Your task to perform on an android device: uninstall "Google Play services" Image 0: 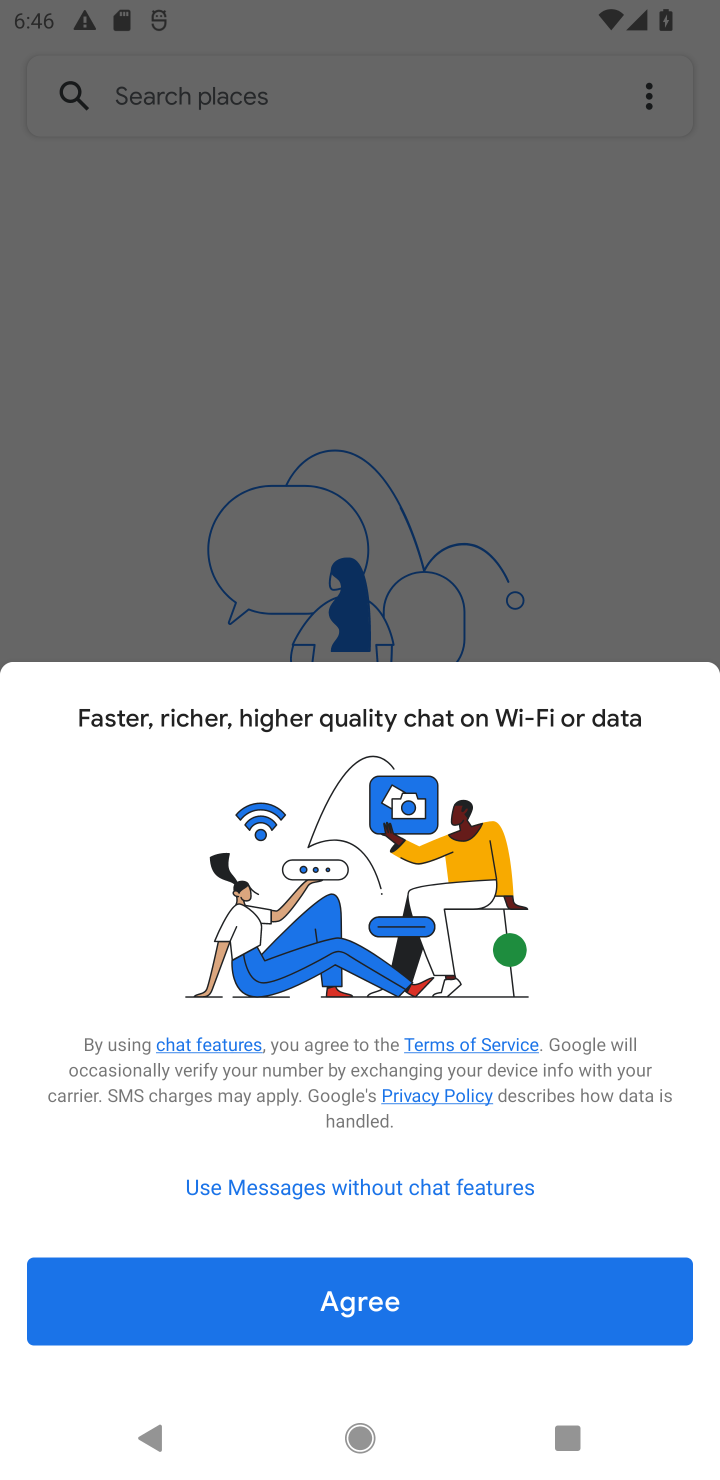
Step 0: press back button
Your task to perform on an android device: uninstall "Google Play services" Image 1: 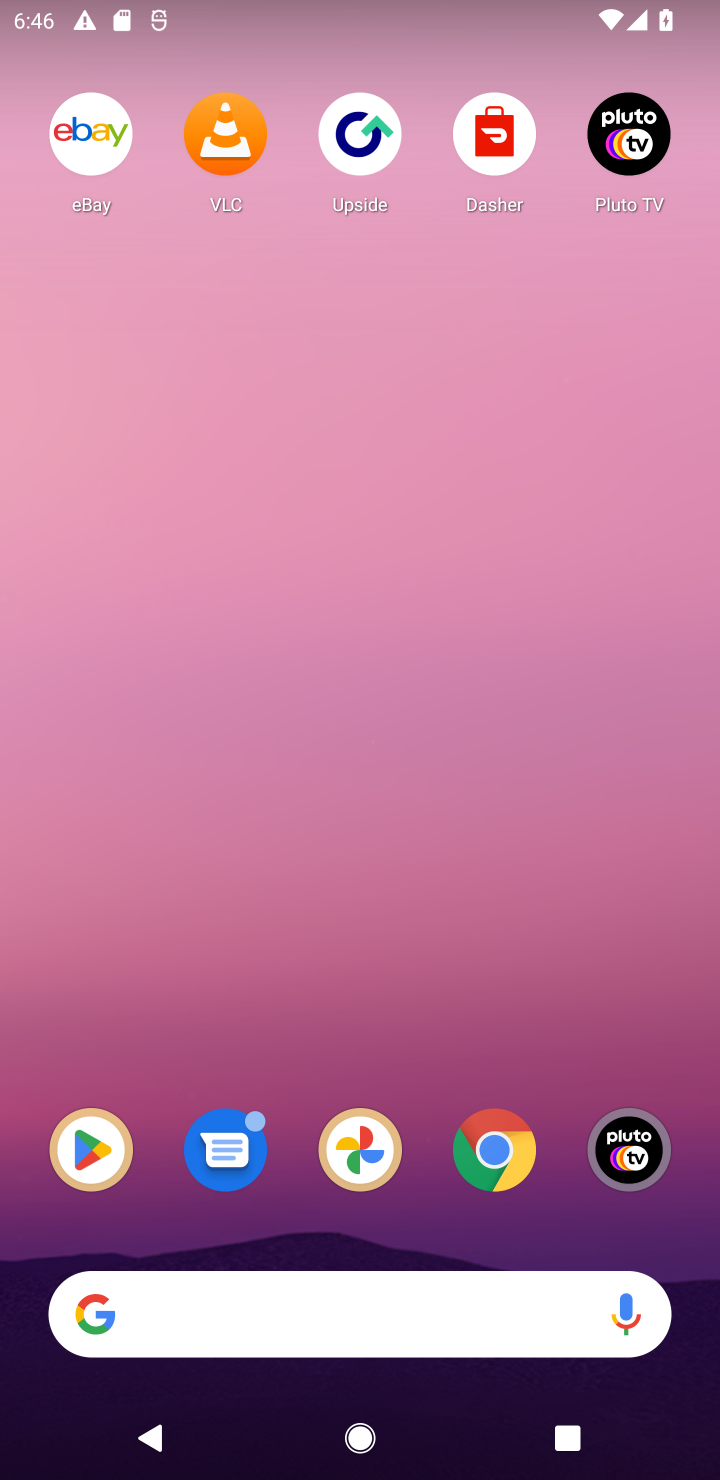
Step 1: press back button
Your task to perform on an android device: uninstall "Google Play services" Image 2: 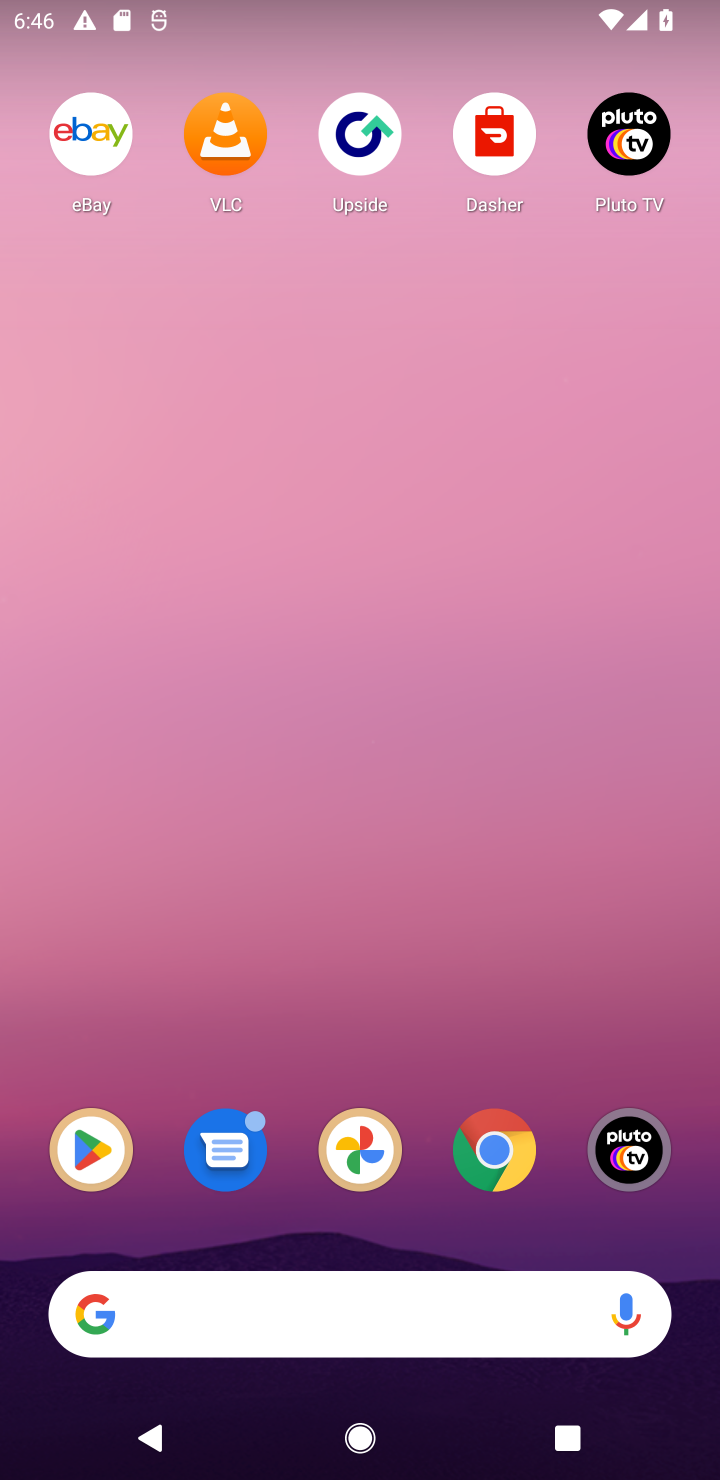
Step 2: click (73, 1159)
Your task to perform on an android device: uninstall "Google Play services" Image 3: 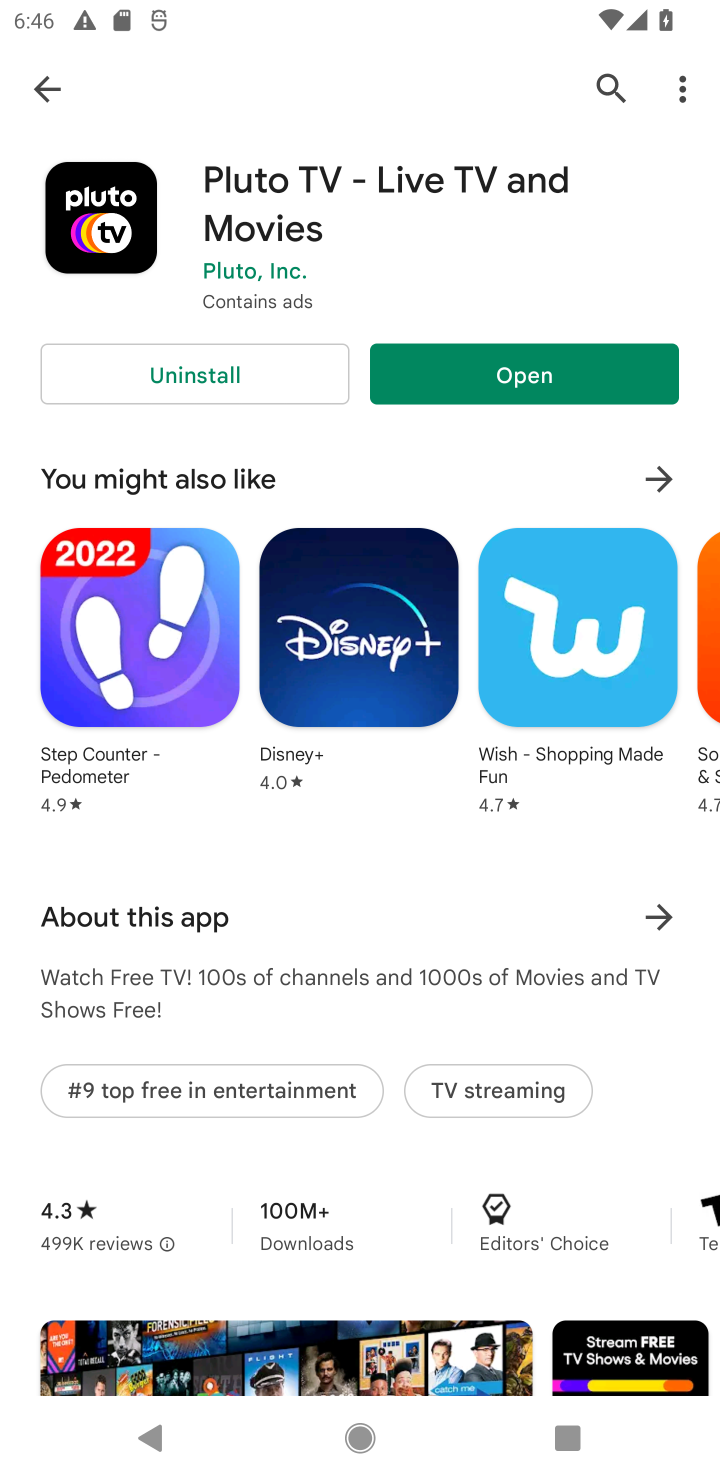
Step 3: click (45, 91)
Your task to perform on an android device: uninstall "Google Play services" Image 4: 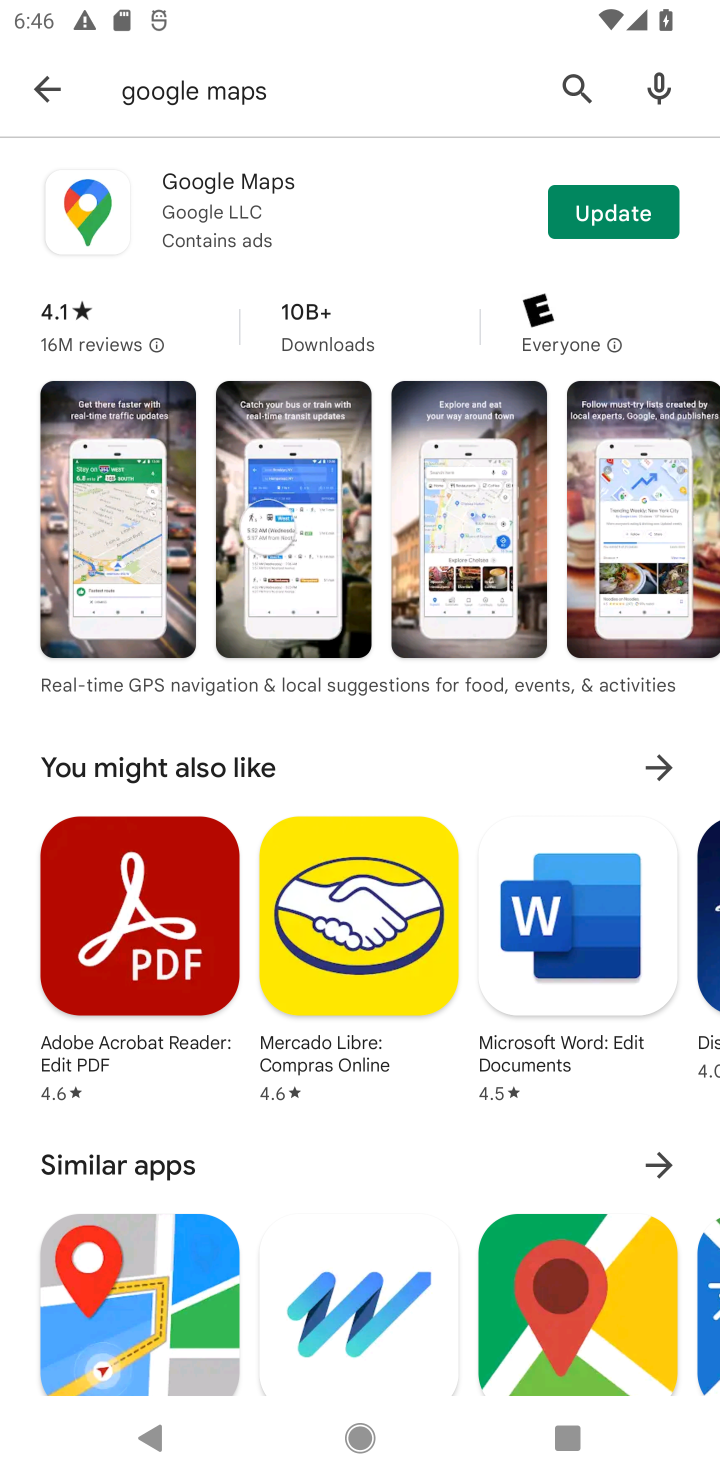
Step 4: click (52, 89)
Your task to perform on an android device: uninstall "Google Play services" Image 5: 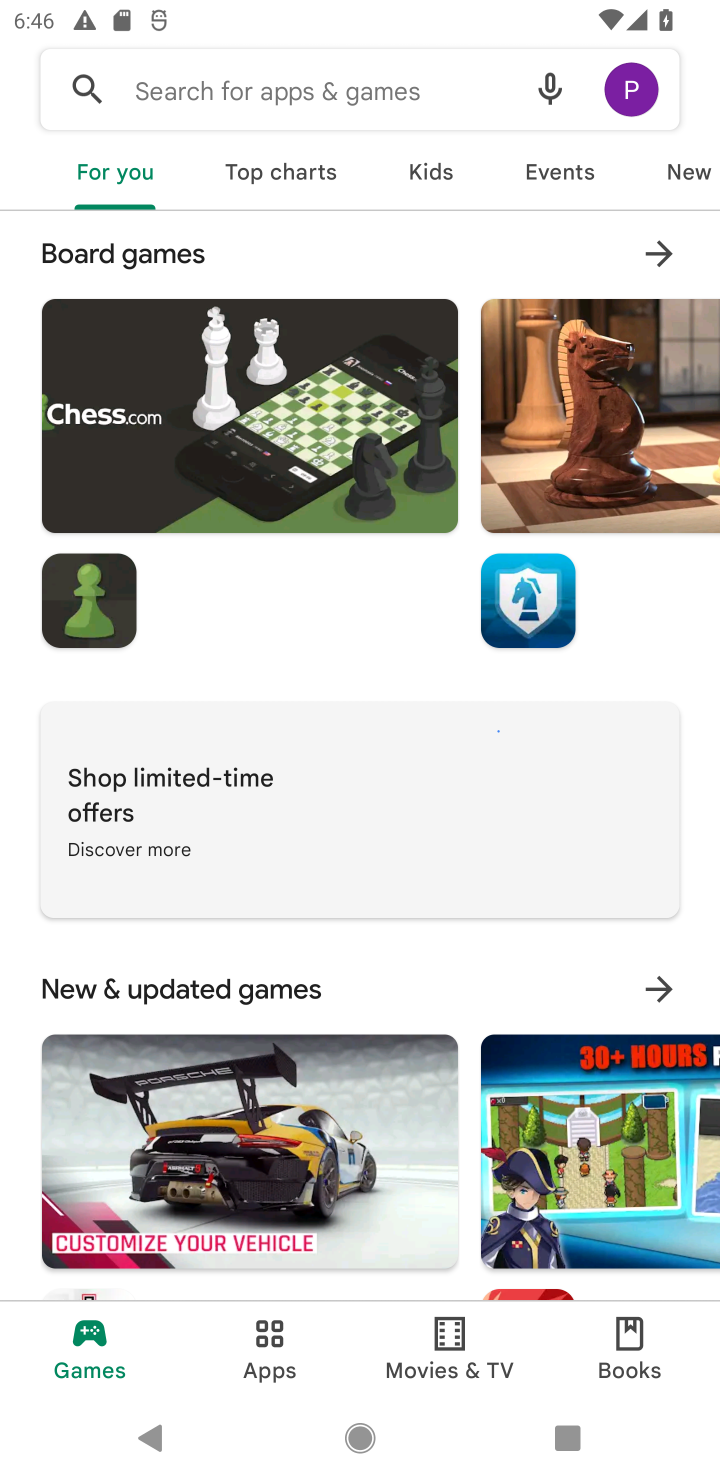
Step 5: click (157, 74)
Your task to perform on an android device: uninstall "Google Play services" Image 6: 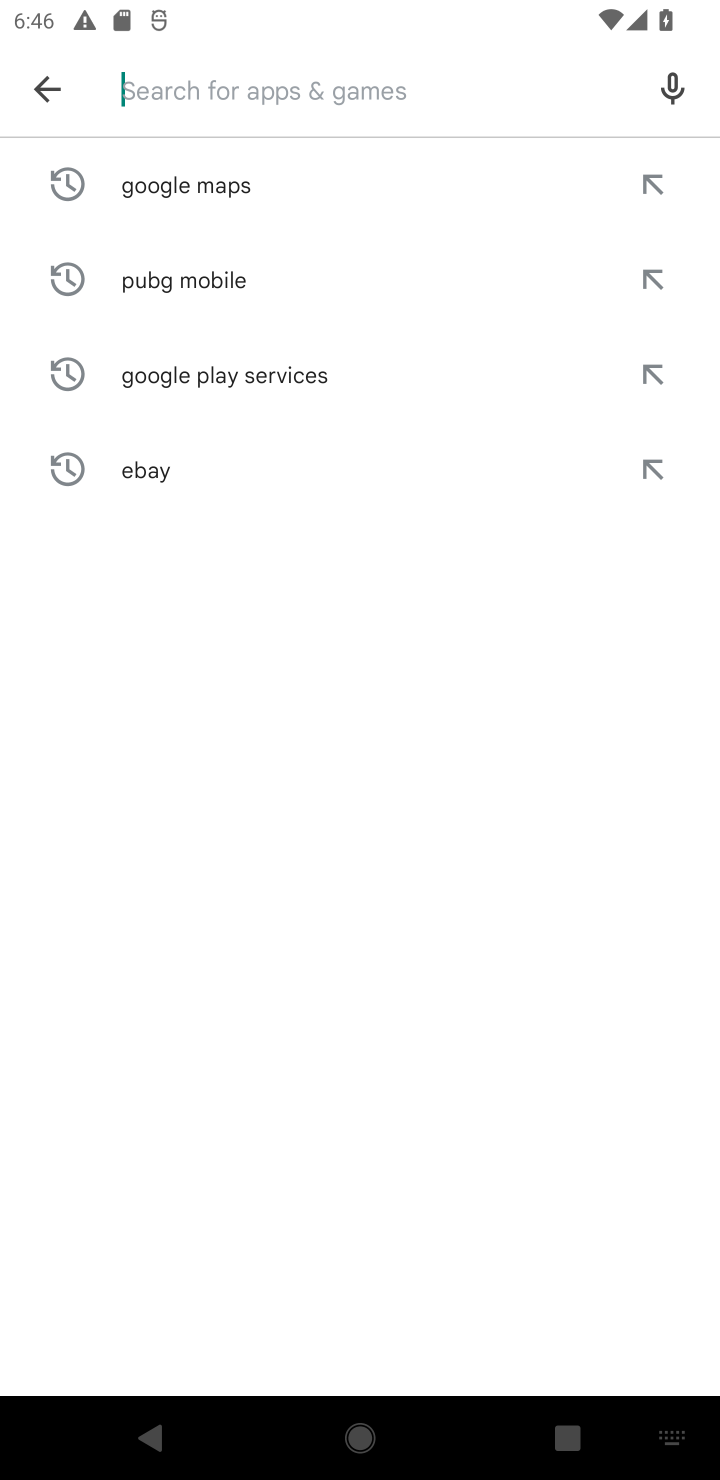
Step 6: type "Google Play services"
Your task to perform on an android device: uninstall "Google Play services" Image 7: 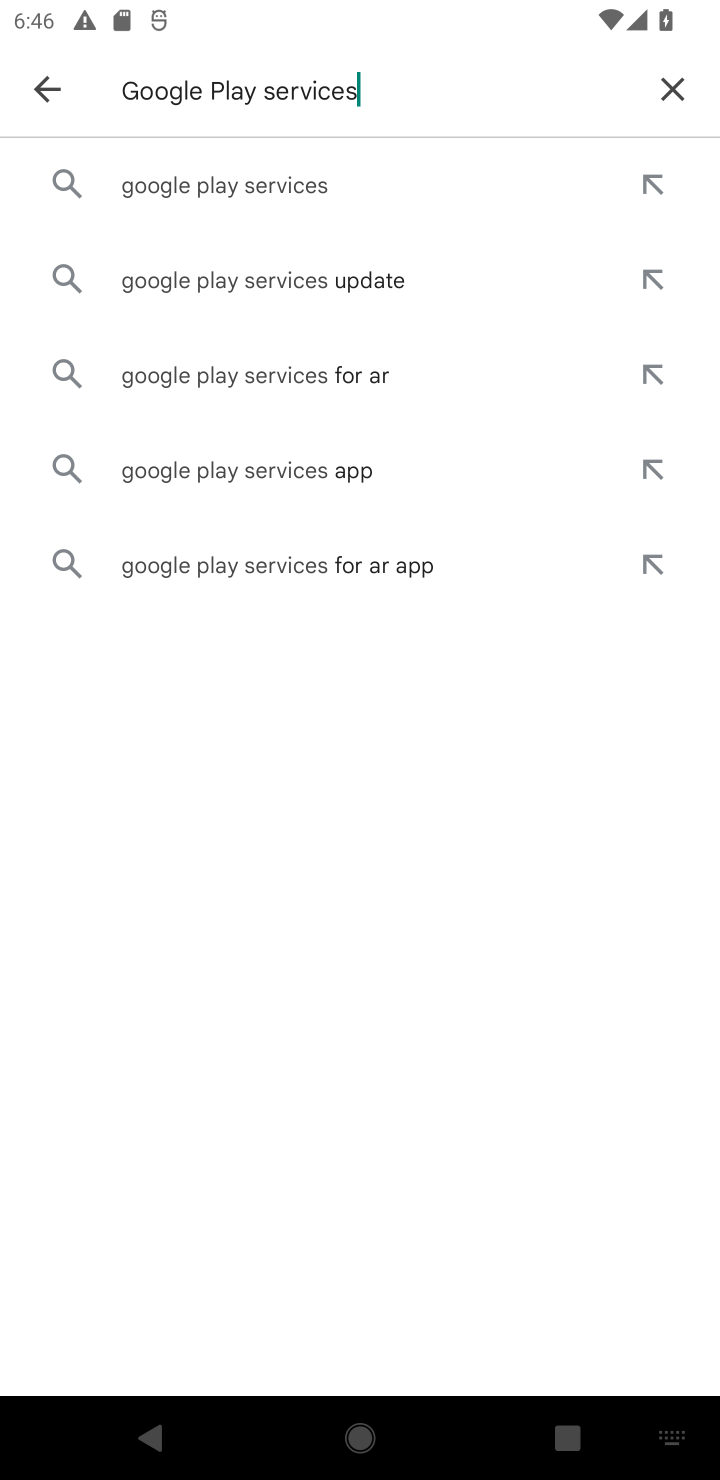
Step 7: click (143, 177)
Your task to perform on an android device: uninstall "Google Play services" Image 8: 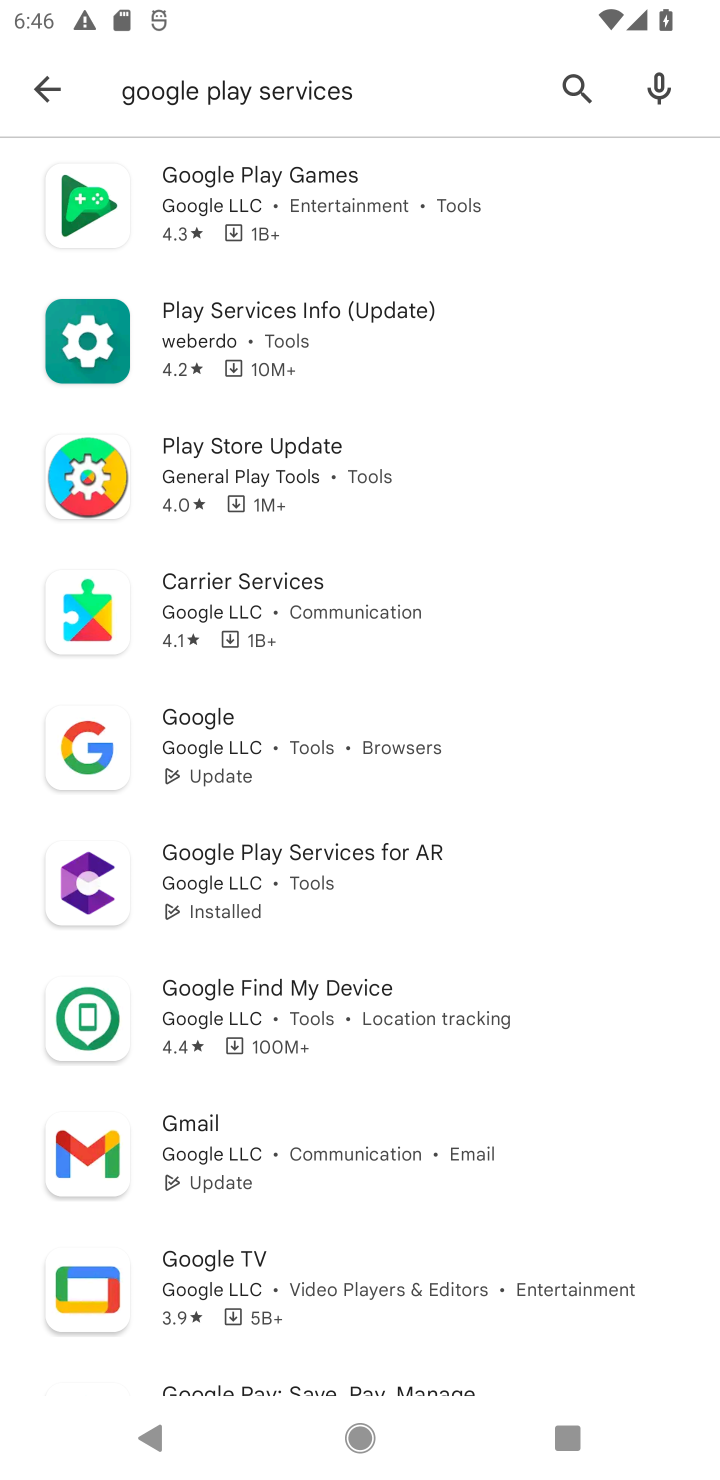
Step 8: click (140, 177)
Your task to perform on an android device: uninstall "Google Play services" Image 9: 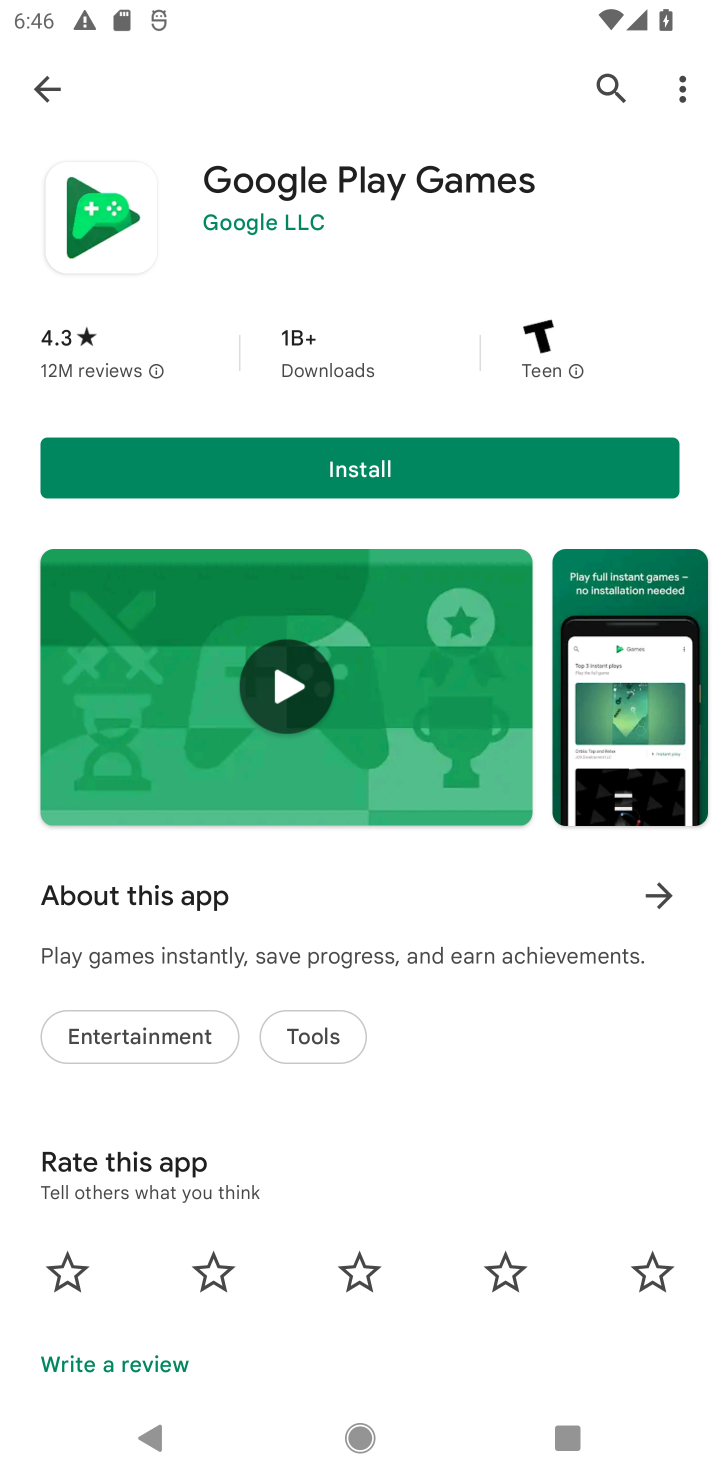
Step 9: click (55, 82)
Your task to perform on an android device: uninstall "Google Play services" Image 10: 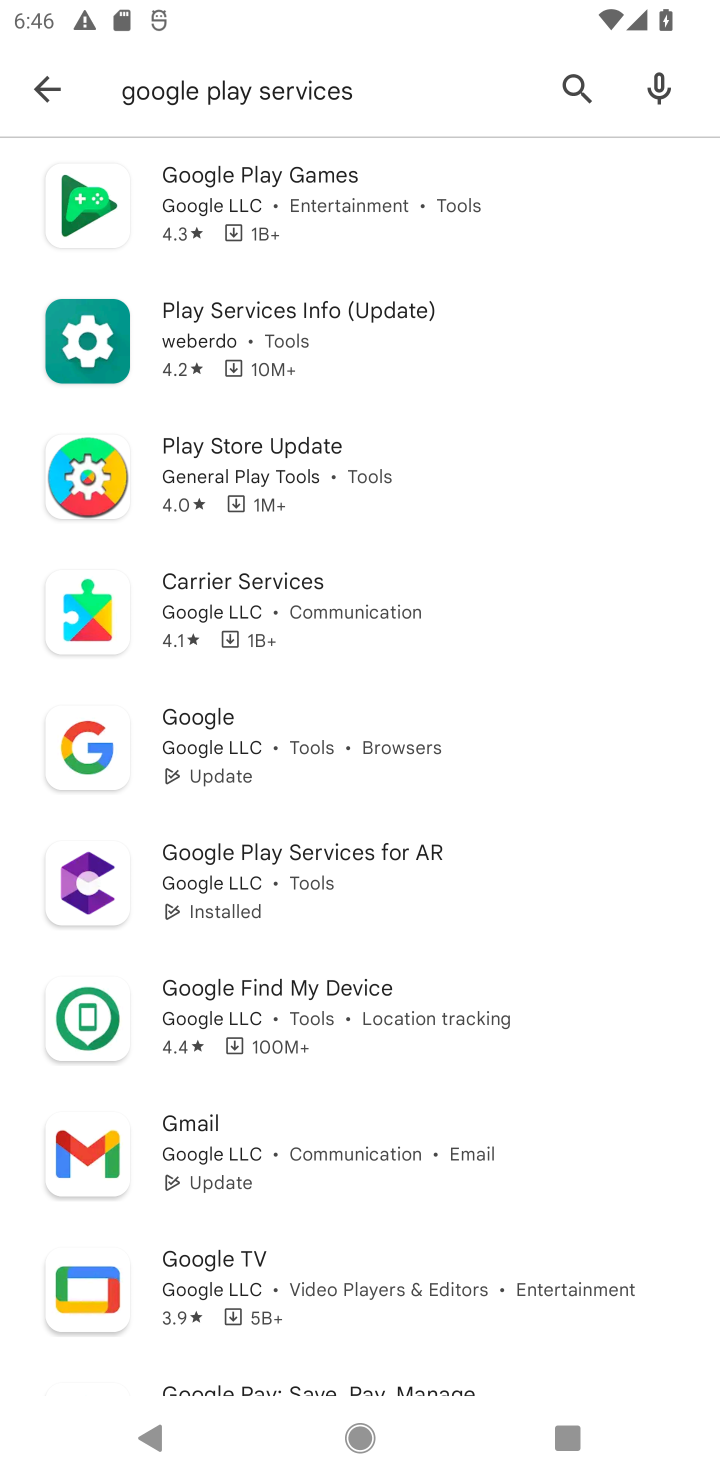
Step 10: task complete